Your task to perform on an android device: open chrome privacy settings Image 0: 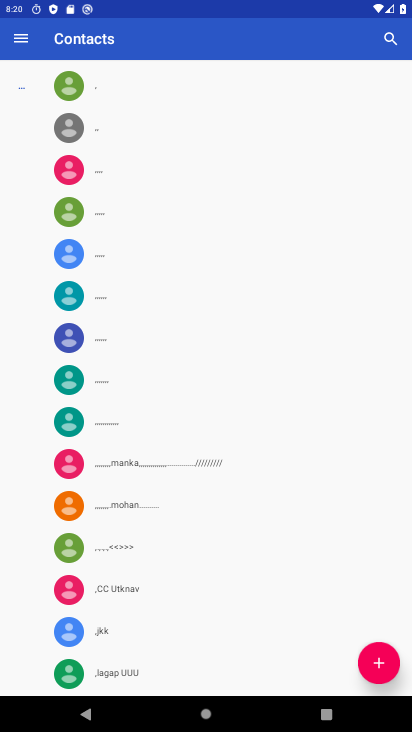
Step 0: press home button
Your task to perform on an android device: open chrome privacy settings Image 1: 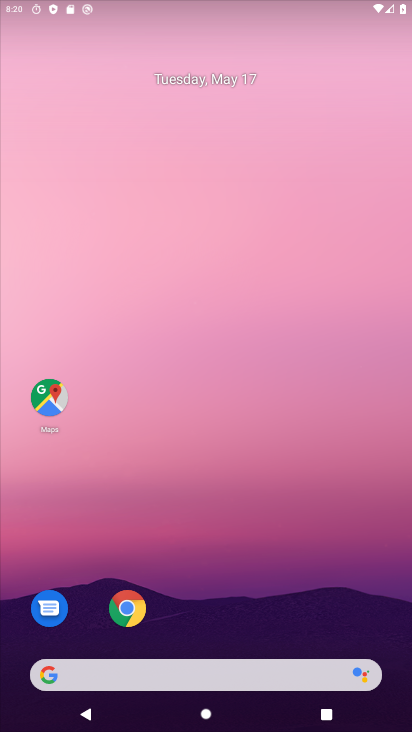
Step 1: drag from (309, 588) to (288, 152)
Your task to perform on an android device: open chrome privacy settings Image 2: 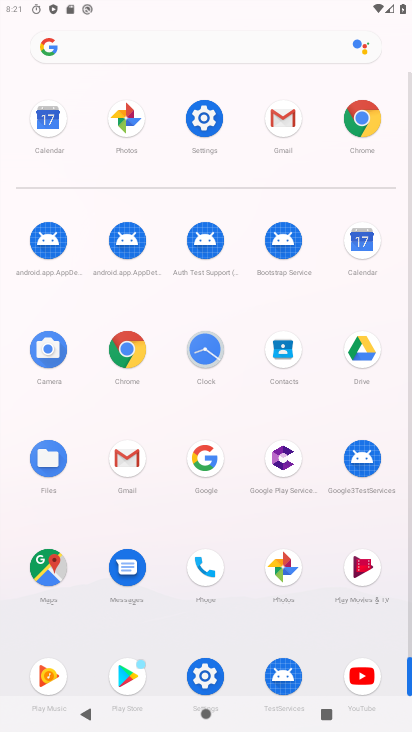
Step 2: click (137, 349)
Your task to perform on an android device: open chrome privacy settings Image 3: 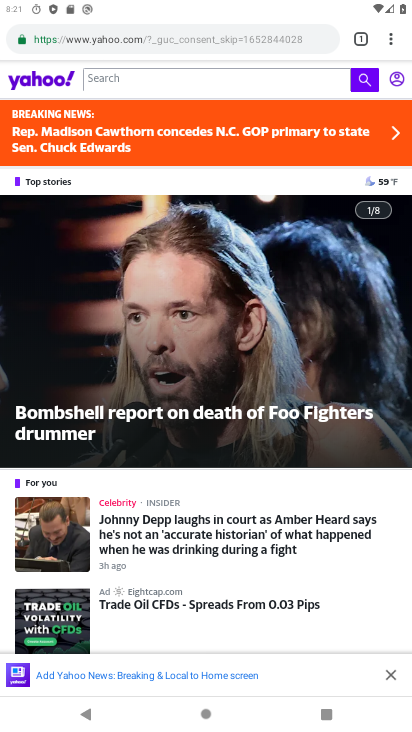
Step 3: drag from (380, 40) to (246, 463)
Your task to perform on an android device: open chrome privacy settings Image 4: 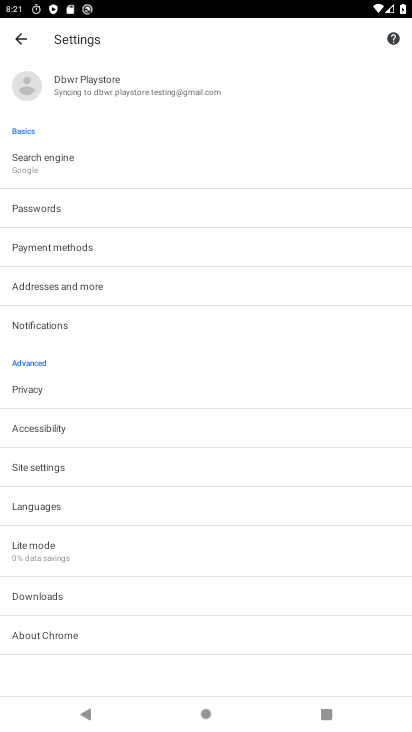
Step 4: click (97, 388)
Your task to perform on an android device: open chrome privacy settings Image 5: 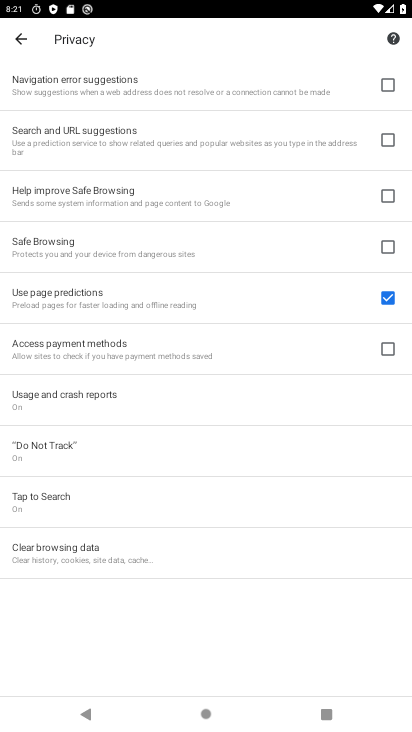
Step 5: task complete